Your task to perform on an android device: Open the calendar and show me this week's events? Image 0: 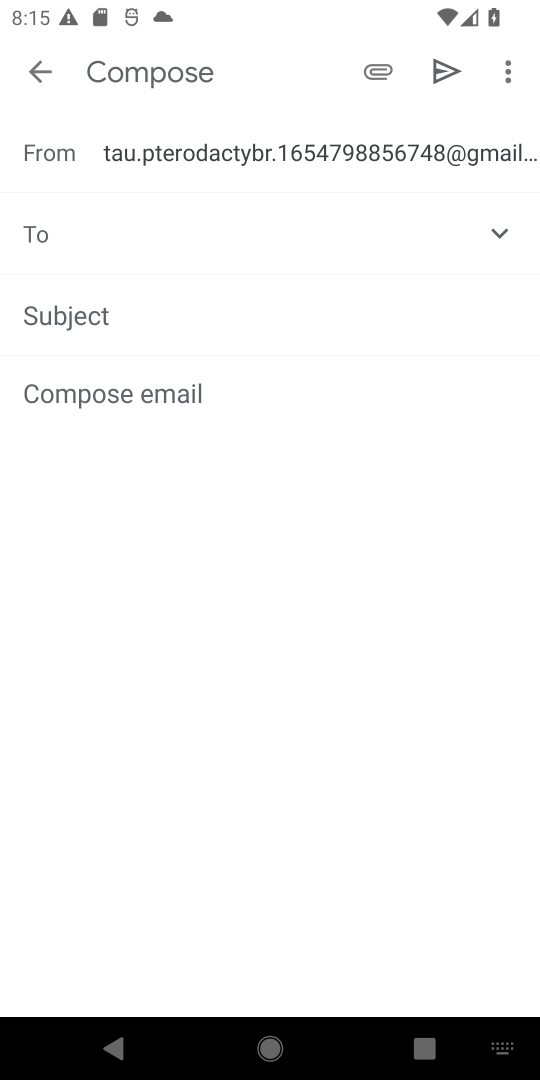
Step 0: press home button
Your task to perform on an android device: Open the calendar and show me this week's events? Image 1: 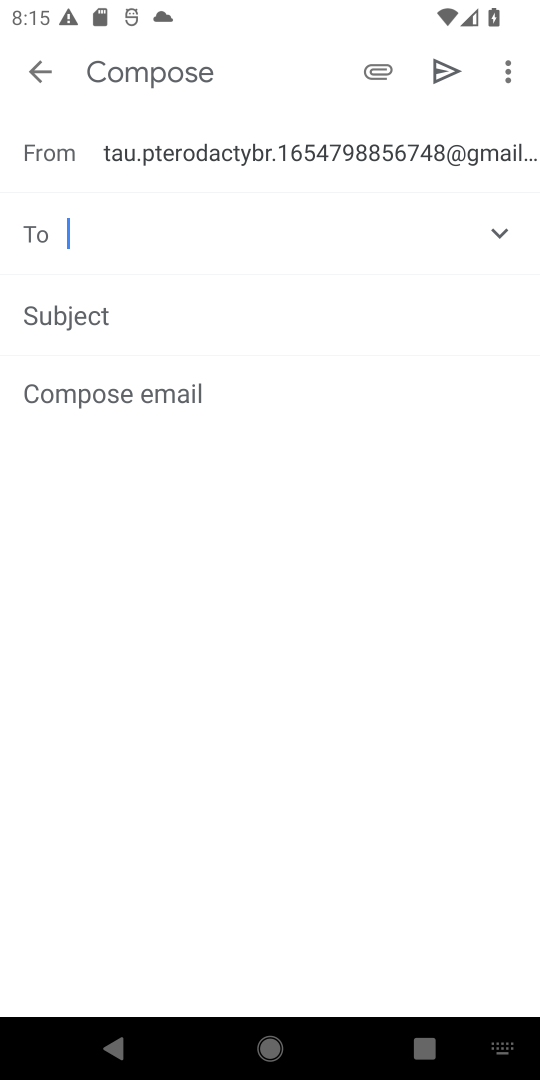
Step 1: press home button
Your task to perform on an android device: Open the calendar and show me this week's events? Image 2: 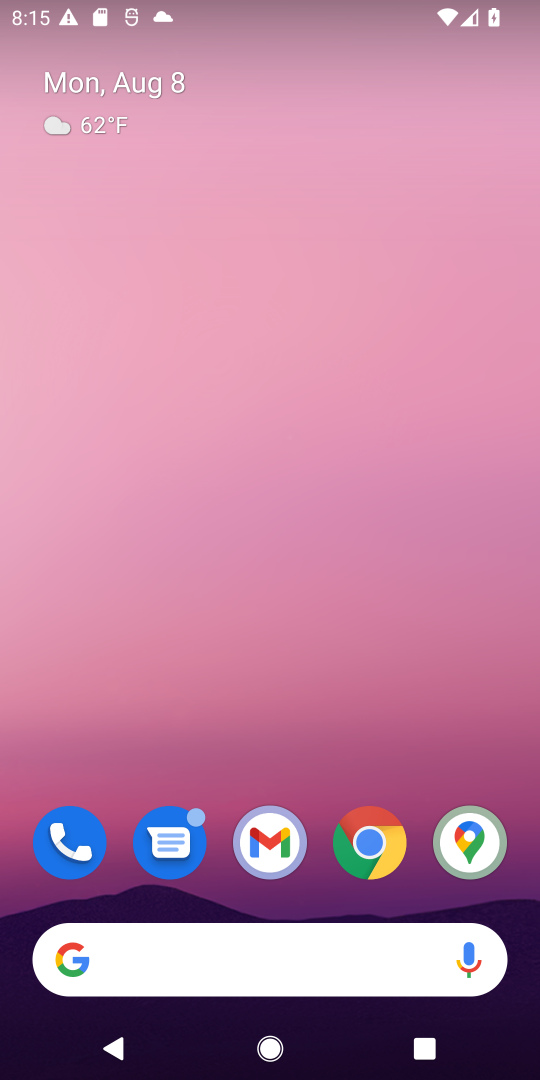
Step 2: drag from (260, 740) to (199, 1)
Your task to perform on an android device: Open the calendar and show me this week's events? Image 3: 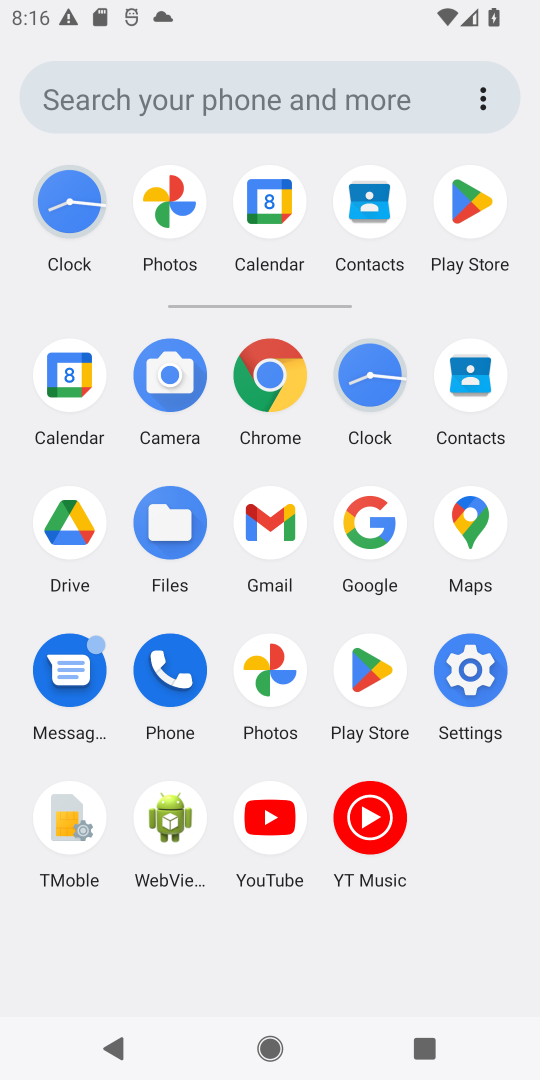
Step 3: click (265, 189)
Your task to perform on an android device: Open the calendar and show me this week's events? Image 4: 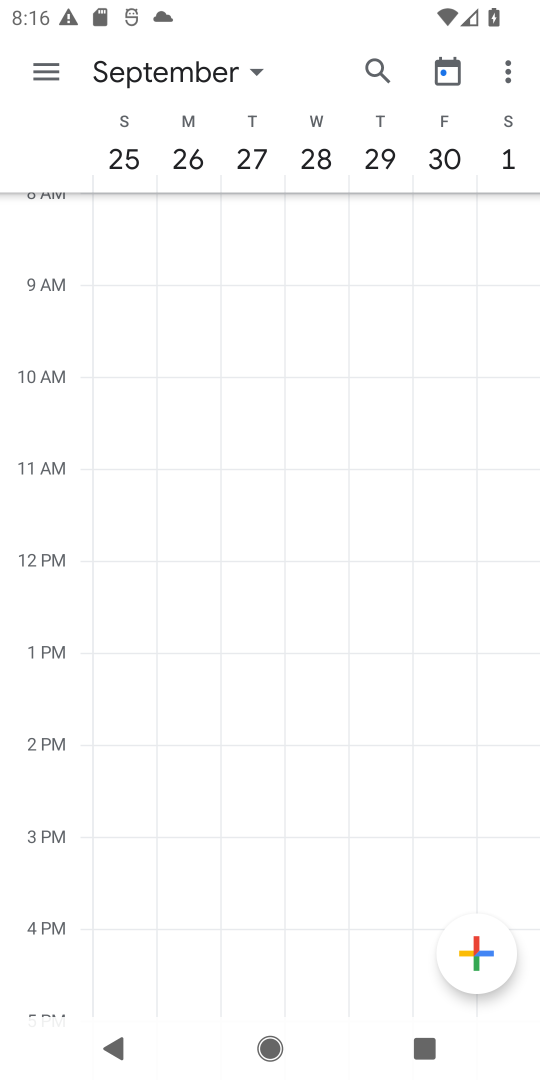
Step 4: task complete